Your task to perform on an android device: Open privacy settings Image 0: 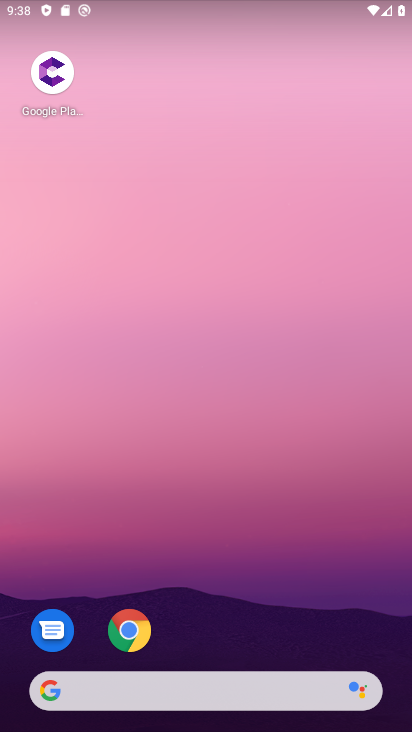
Step 0: drag from (205, 731) to (162, 66)
Your task to perform on an android device: Open privacy settings Image 1: 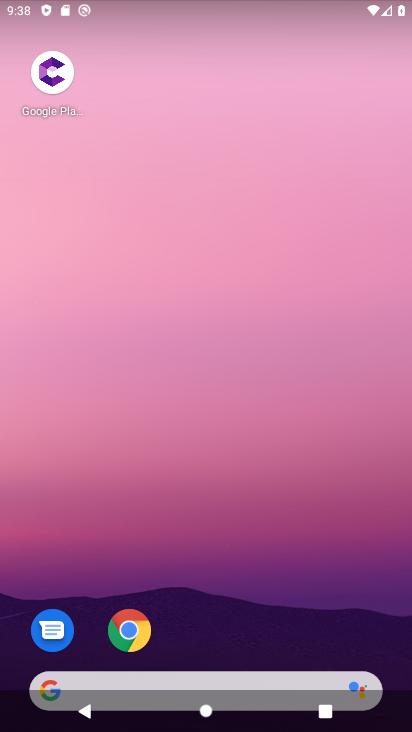
Step 1: drag from (239, 681) to (239, 200)
Your task to perform on an android device: Open privacy settings Image 2: 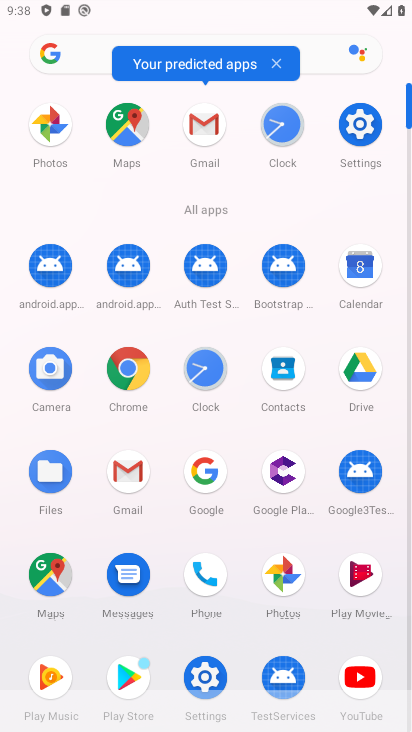
Step 2: click (357, 124)
Your task to perform on an android device: Open privacy settings Image 3: 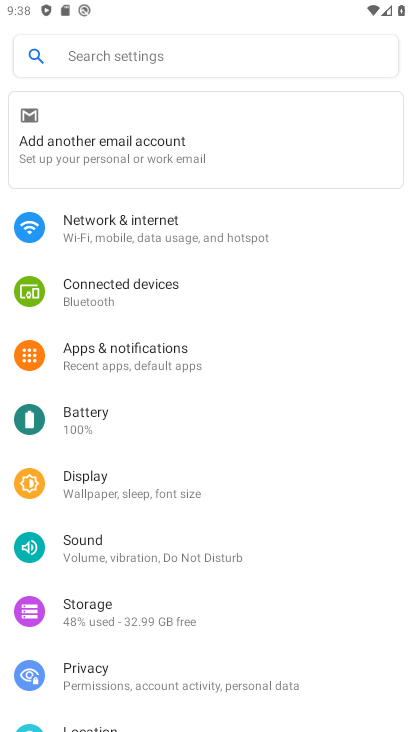
Step 3: click (92, 674)
Your task to perform on an android device: Open privacy settings Image 4: 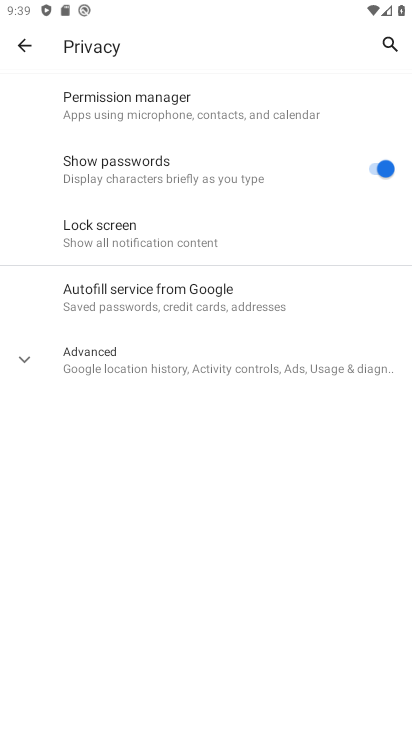
Step 4: task complete